Your task to perform on an android device: toggle improve location accuracy Image 0: 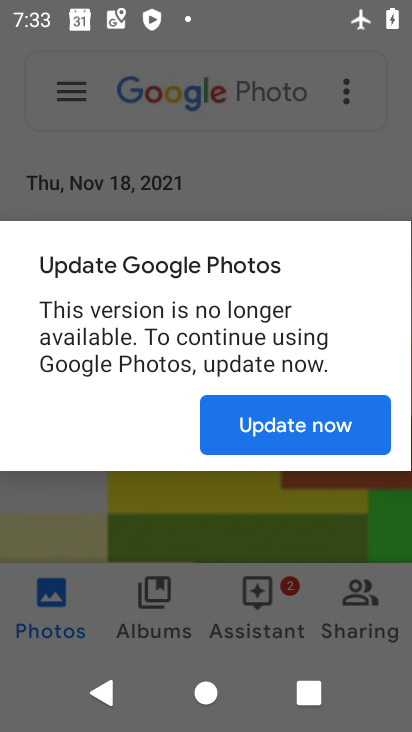
Step 0: press home button
Your task to perform on an android device: toggle improve location accuracy Image 1: 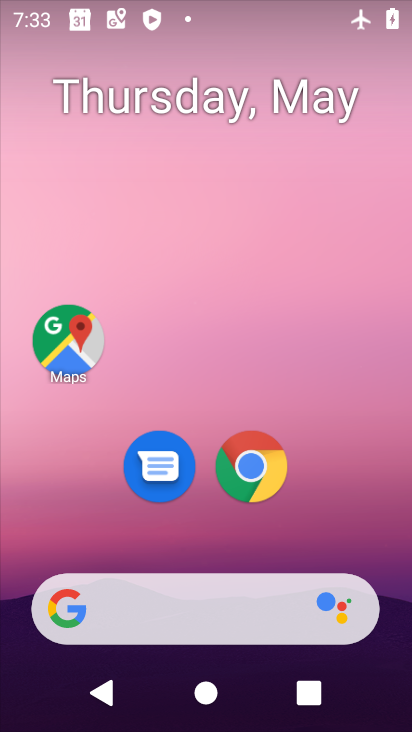
Step 1: drag from (358, 535) to (291, 146)
Your task to perform on an android device: toggle improve location accuracy Image 2: 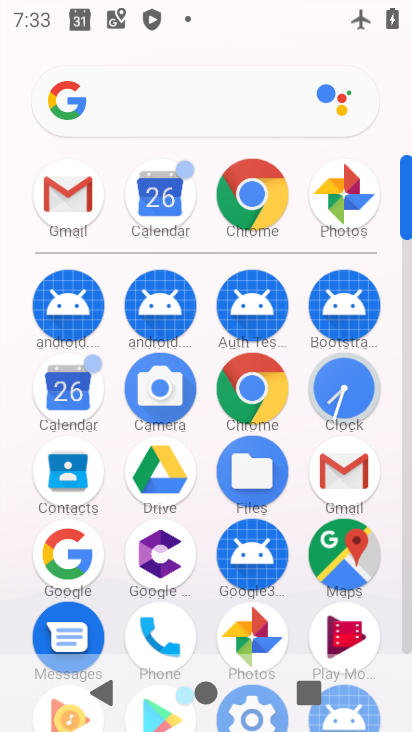
Step 2: drag from (197, 570) to (149, 287)
Your task to perform on an android device: toggle improve location accuracy Image 3: 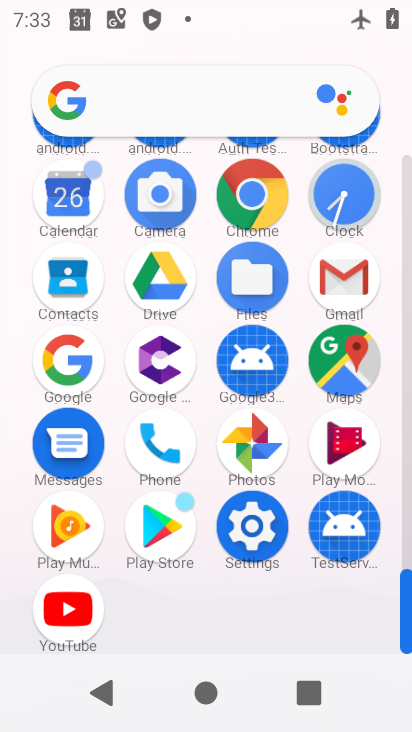
Step 3: click (254, 528)
Your task to perform on an android device: toggle improve location accuracy Image 4: 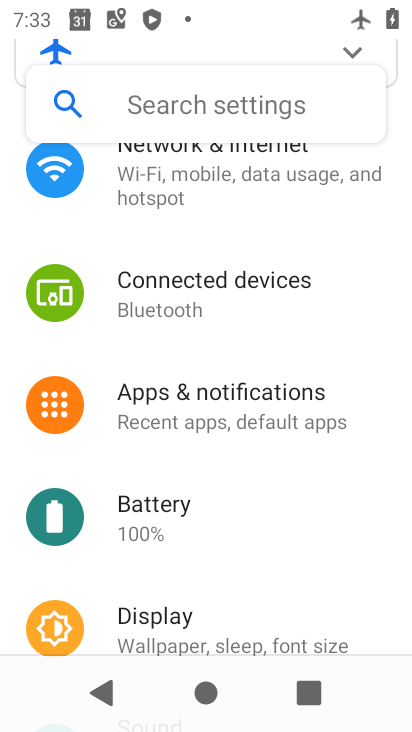
Step 4: drag from (245, 571) to (229, 249)
Your task to perform on an android device: toggle improve location accuracy Image 5: 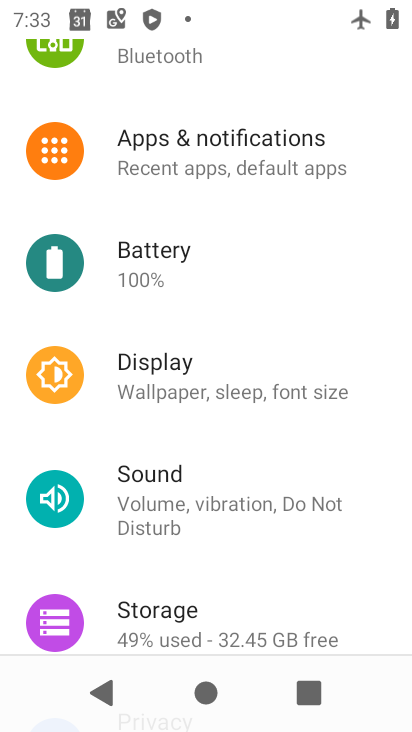
Step 5: drag from (208, 538) to (193, 287)
Your task to perform on an android device: toggle improve location accuracy Image 6: 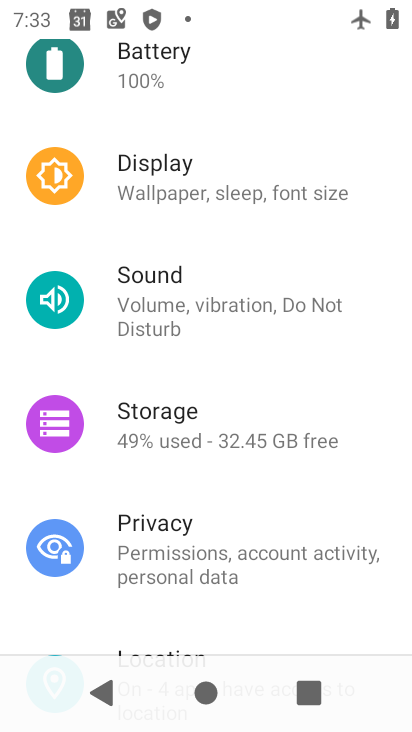
Step 6: drag from (223, 371) to (203, 172)
Your task to perform on an android device: toggle improve location accuracy Image 7: 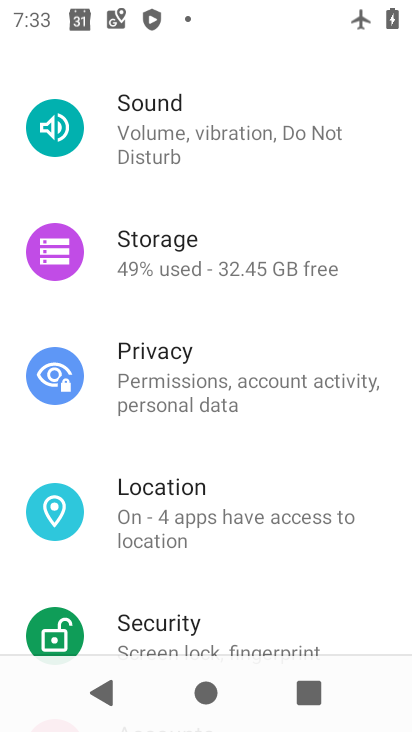
Step 7: click (172, 502)
Your task to perform on an android device: toggle improve location accuracy Image 8: 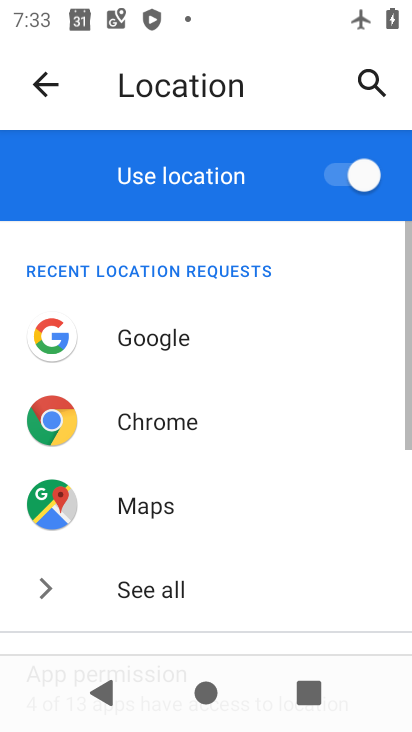
Step 8: drag from (248, 578) to (203, 215)
Your task to perform on an android device: toggle improve location accuracy Image 9: 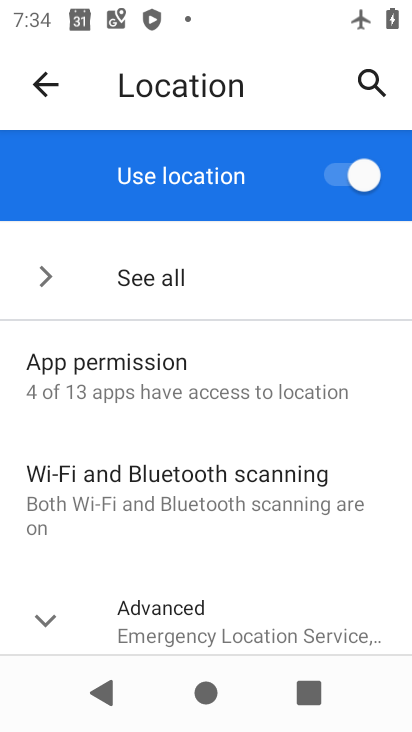
Step 9: click (49, 612)
Your task to perform on an android device: toggle improve location accuracy Image 10: 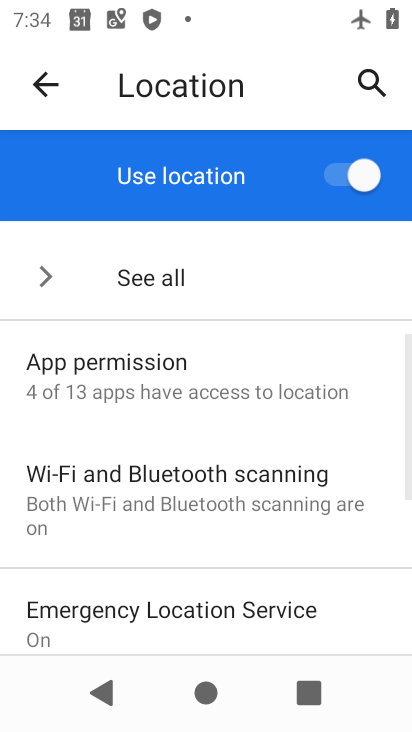
Step 10: drag from (218, 567) to (198, 338)
Your task to perform on an android device: toggle improve location accuracy Image 11: 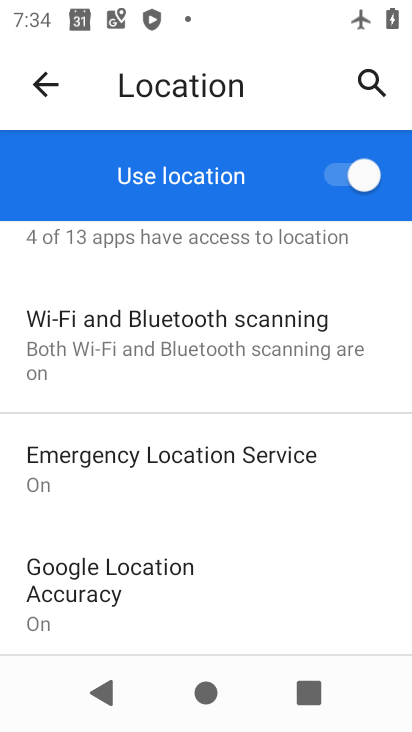
Step 11: drag from (239, 548) to (204, 350)
Your task to perform on an android device: toggle improve location accuracy Image 12: 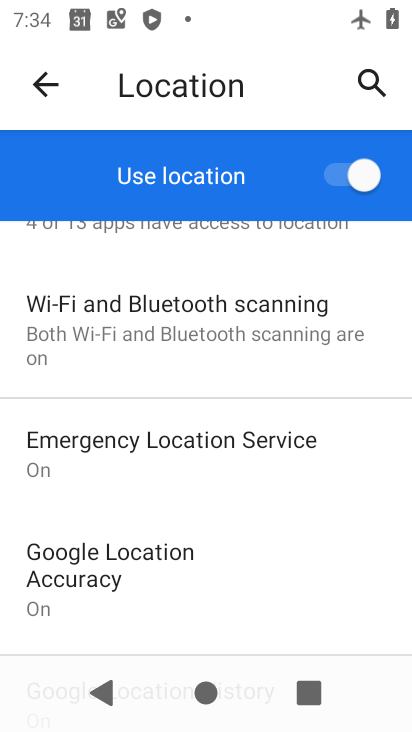
Step 12: click (91, 555)
Your task to perform on an android device: toggle improve location accuracy Image 13: 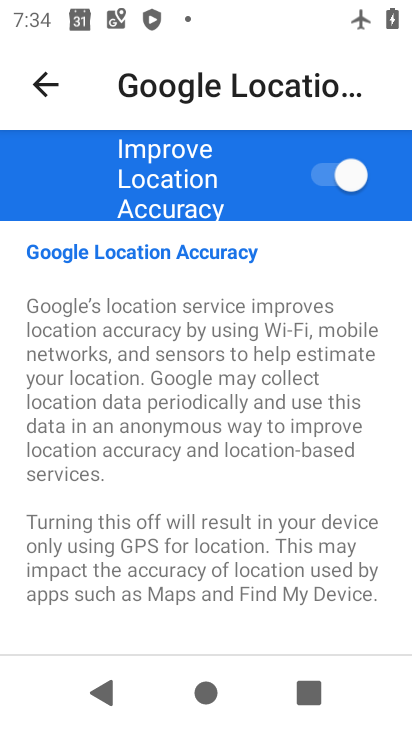
Step 13: click (353, 182)
Your task to perform on an android device: toggle improve location accuracy Image 14: 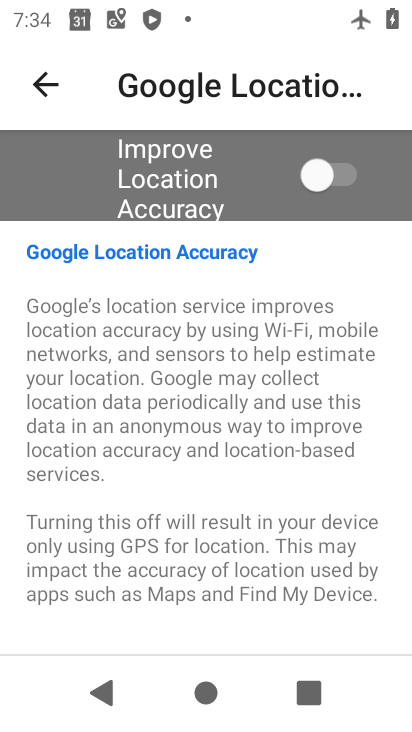
Step 14: task complete